Your task to perform on an android device: Open the Play Movies app and select the watchlist tab. Image 0: 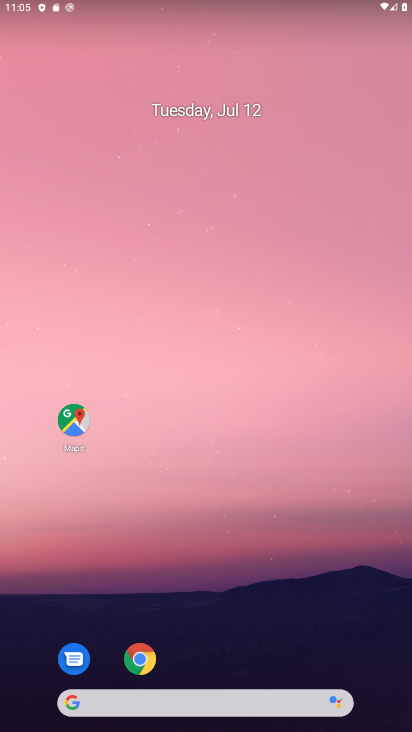
Step 0: drag from (140, 632) to (207, 3)
Your task to perform on an android device: Open the Play Movies app and select the watchlist tab. Image 1: 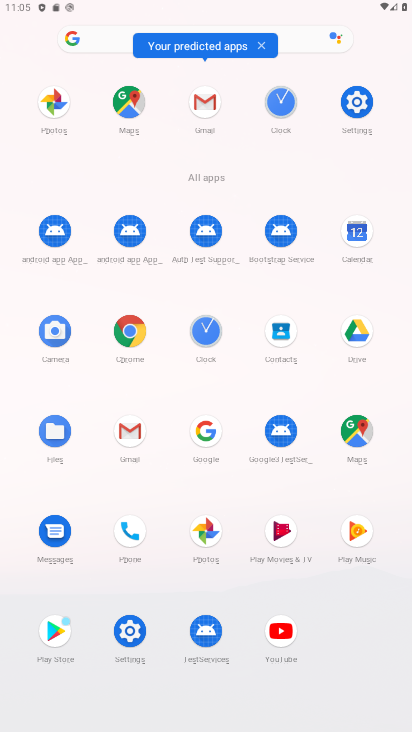
Step 1: click (274, 529)
Your task to perform on an android device: Open the Play Movies app and select the watchlist tab. Image 2: 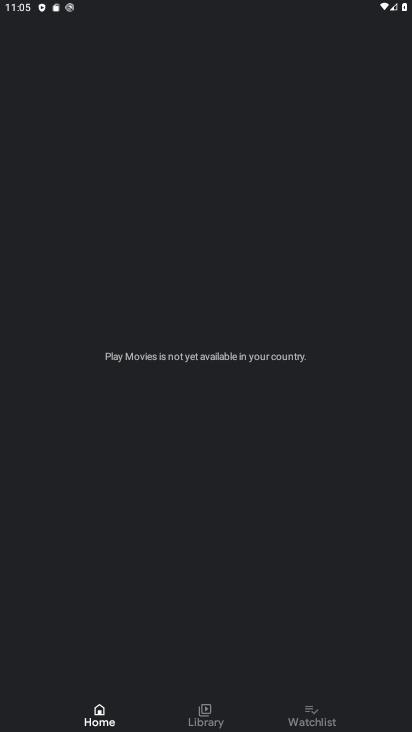
Step 2: click (317, 718)
Your task to perform on an android device: Open the Play Movies app and select the watchlist tab. Image 3: 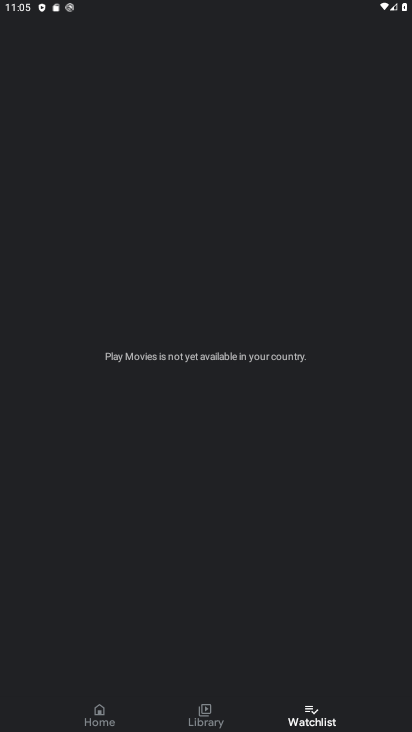
Step 3: task complete